Your task to perform on an android device: turn on bluetooth scan Image 0: 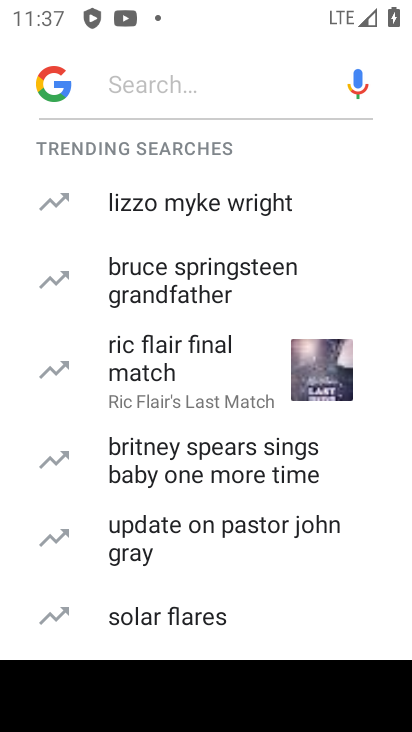
Step 0: press back button
Your task to perform on an android device: turn on bluetooth scan Image 1: 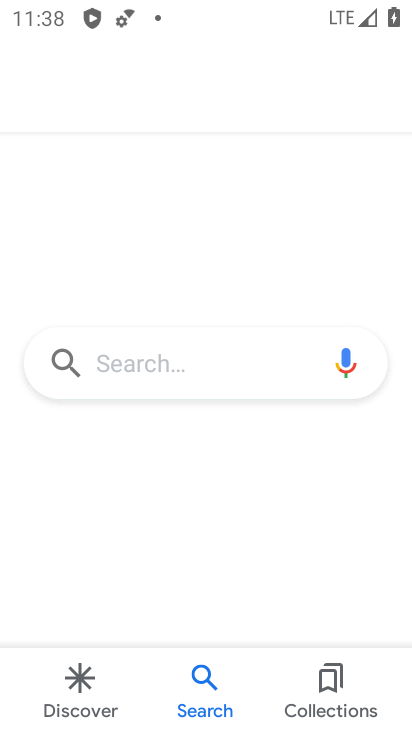
Step 1: press back button
Your task to perform on an android device: turn on bluetooth scan Image 2: 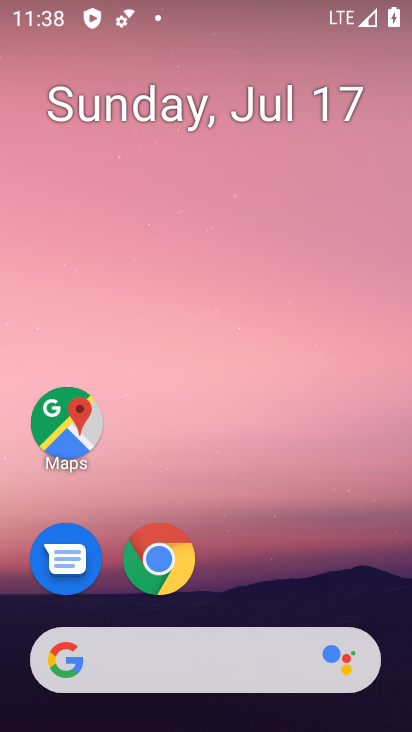
Step 2: drag from (229, 526) to (306, 8)
Your task to perform on an android device: turn on bluetooth scan Image 3: 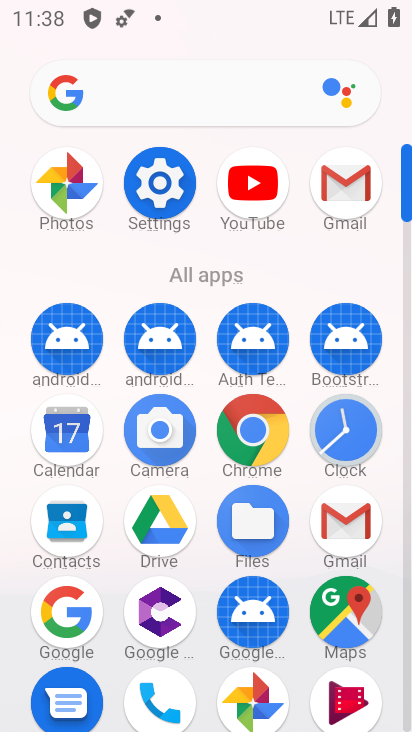
Step 3: click (161, 185)
Your task to perform on an android device: turn on bluetooth scan Image 4: 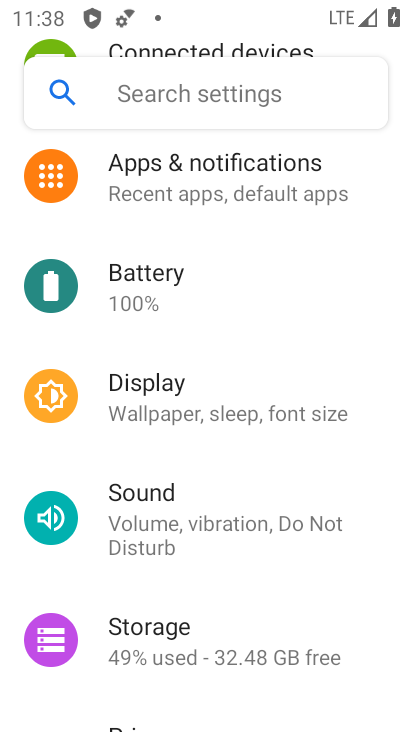
Step 4: drag from (213, 205) to (220, 731)
Your task to perform on an android device: turn on bluetooth scan Image 5: 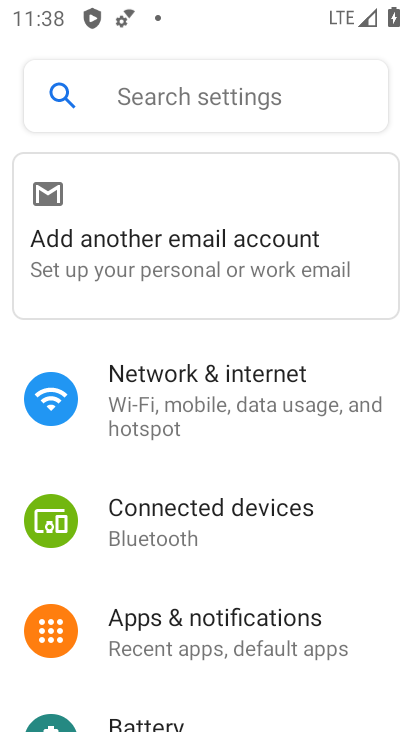
Step 5: click (174, 515)
Your task to perform on an android device: turn on bluetooth scan Image 6: 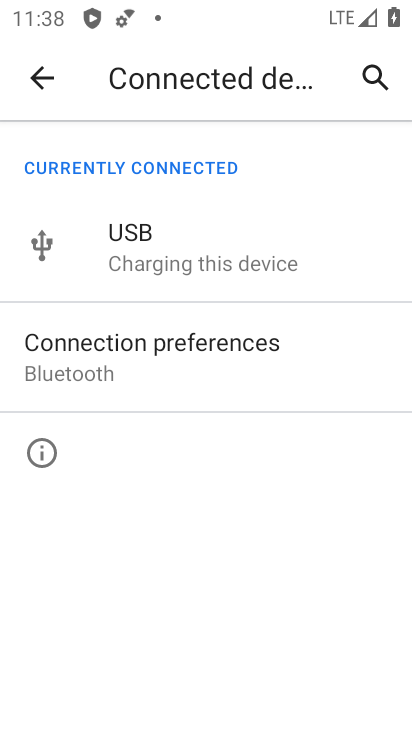
Step 6: click (105, 357)
Your task to perform on an android device: turn on bluetooth scan Image 7: 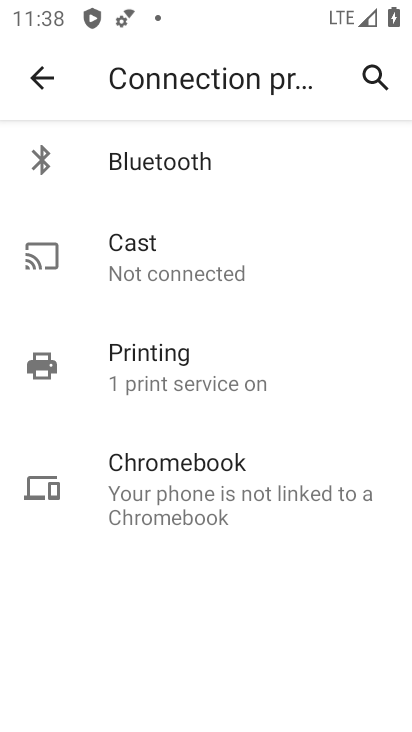
Step 7: click (162, 162)
Your task to perform on an android device: turn on bluetooth scan Image 8: 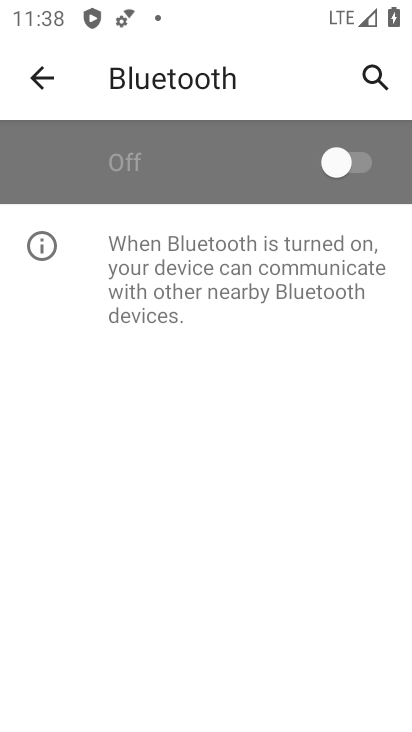
Step 8: click (359, 153)
Your task to perform on an android device: turn on bluetooth scan Image 9: 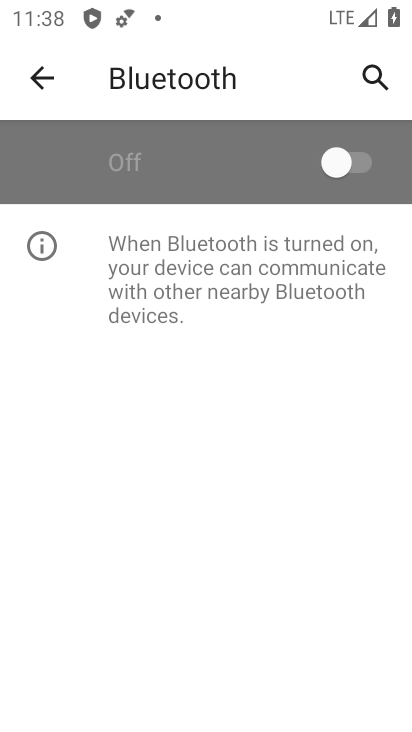
Step 9: task complete